Your task to perform on an android device: Search for hotels in Chicago Image 0: 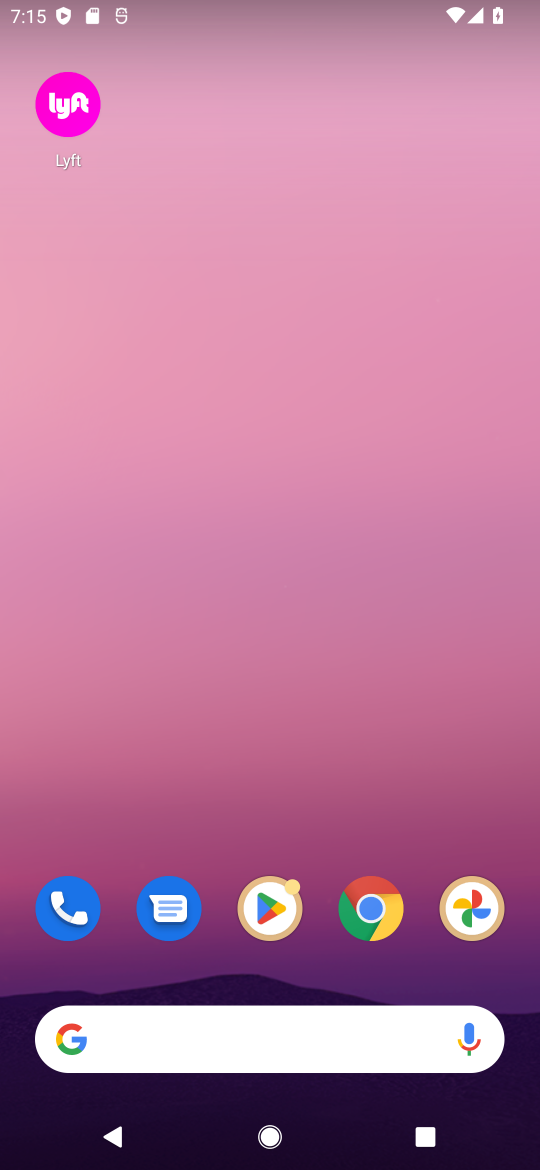
Step 0: click (235, 1061)
Your task to perform on an android device: Search for hotels in Chicago Image 1: 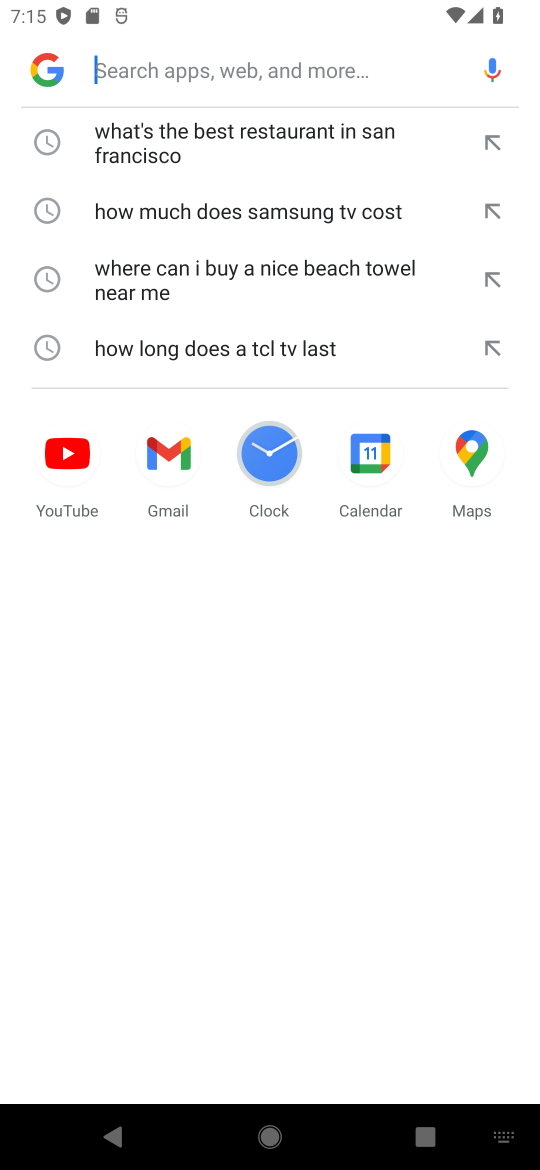
Step 1: type "Search for hotels in Chicago"
Your task to perform on an android device: Search for hotels in Chicago Image 2: 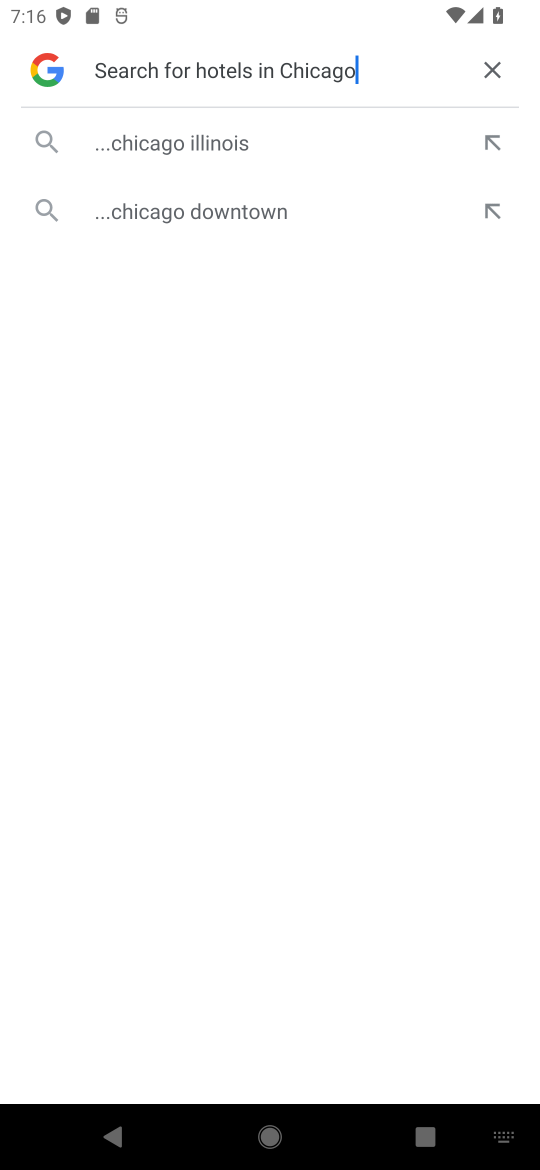
Step 2: click (170, 140)
Your task to perform on an android device: Search for hotels in Chicago Image 3: 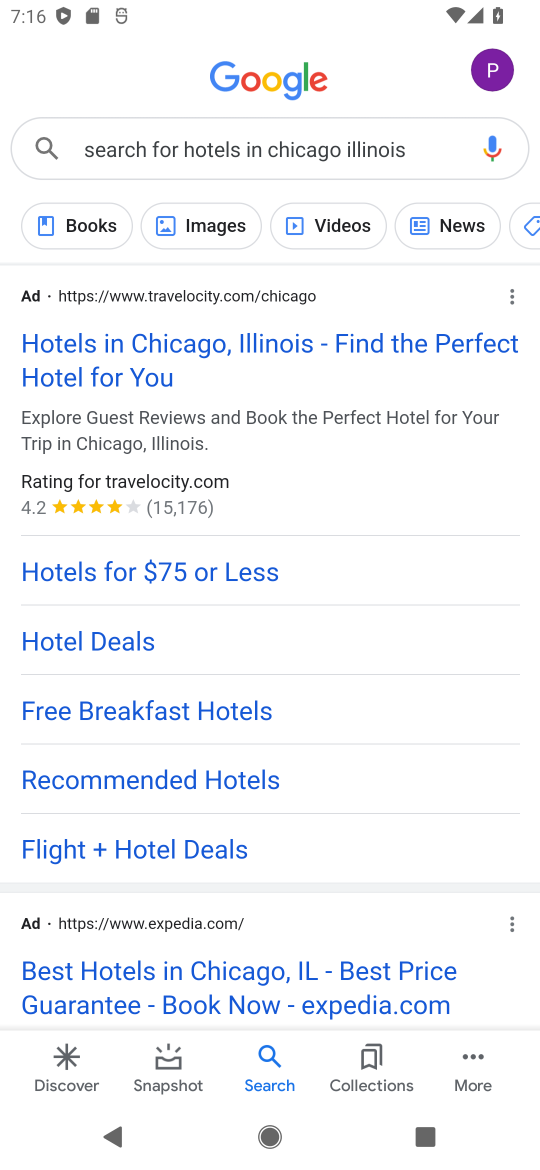
Step 3: click (169, 351)
Your task to perform on an android device: Search for hotels in Chicago Image 4: 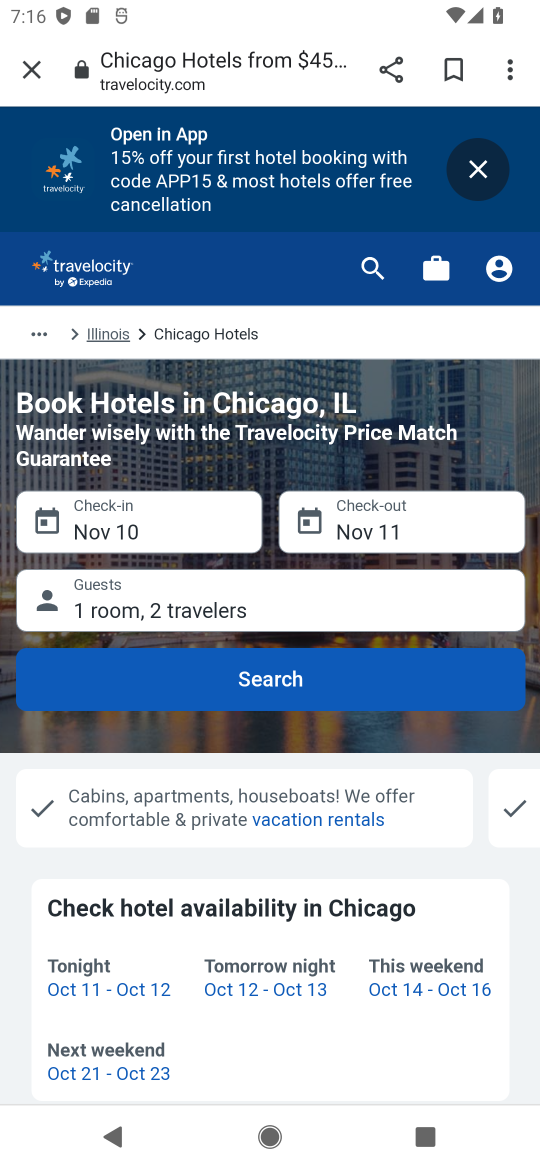
Step 4: click (256, 688)
Your task to perform on an android device: Search for hotels in Chicago Image 5: 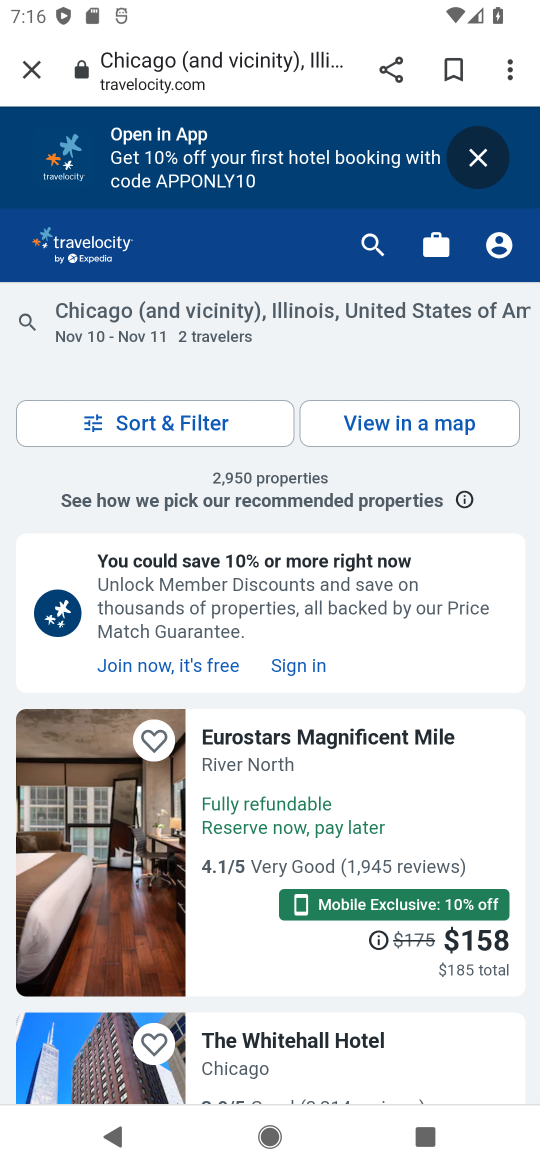
Step 5: task complete